Your task to perform on an android device: open wifi settings Image 0: 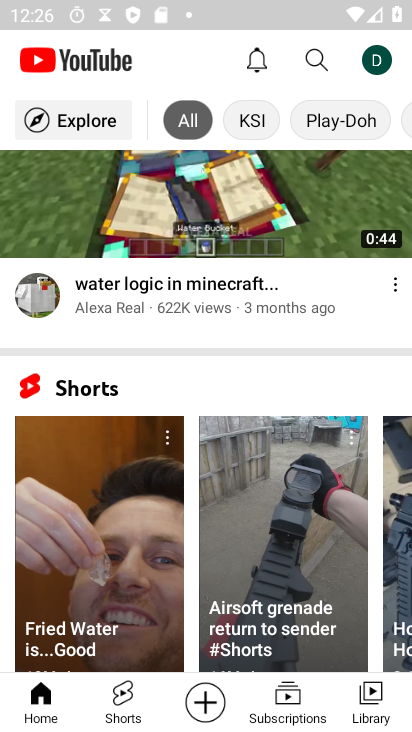
Step 0: press back button
Your task to perform on an android device: open wifi settings Image 1: 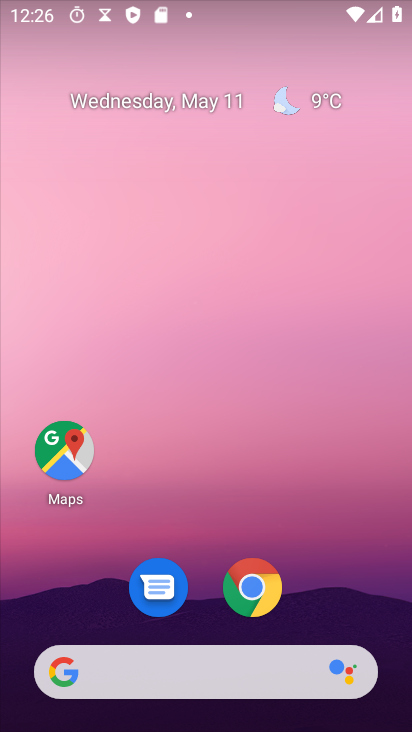
Step 1: drag from (361, 564) to (25, 19)
Your task to perform on an android device: open wifi settings Image 2: 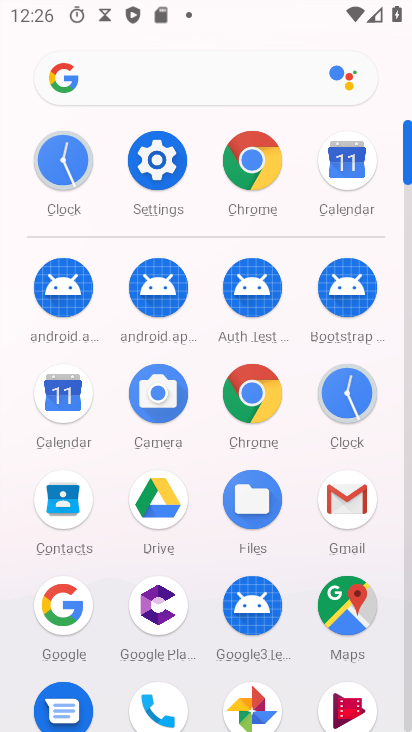
Step 2: click (155, 159)
Your task to perform on an android device: open wifi settings Image 3: 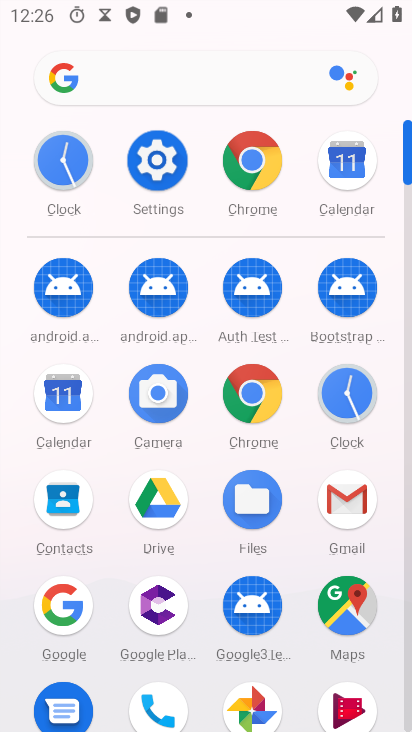
Step 3: click (156, 157)
Your task to perform on an android device: open wifi settings Image 4: 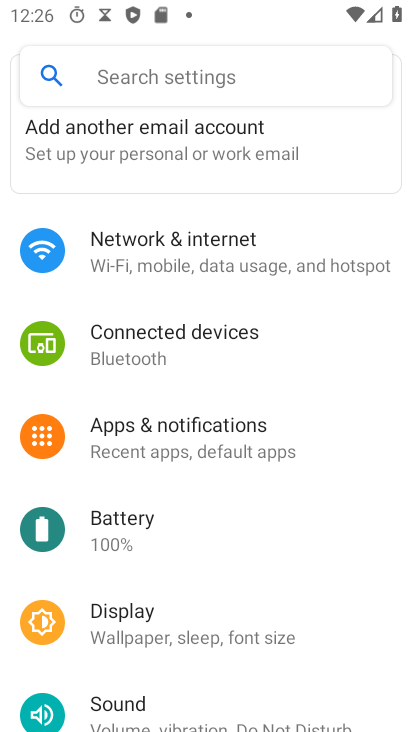
Step 4: click (132, 258)
Your task to perform on an android device: open wifi settings Image 5: 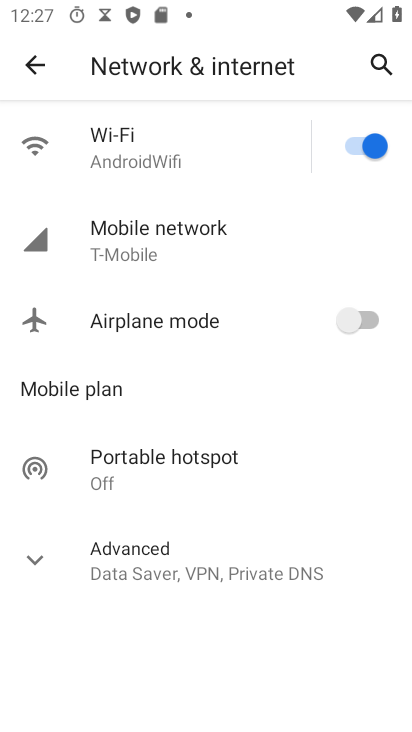
Step 5: task complete